Your task to perform on an android device: set default search engine in the chrome app Image 0: 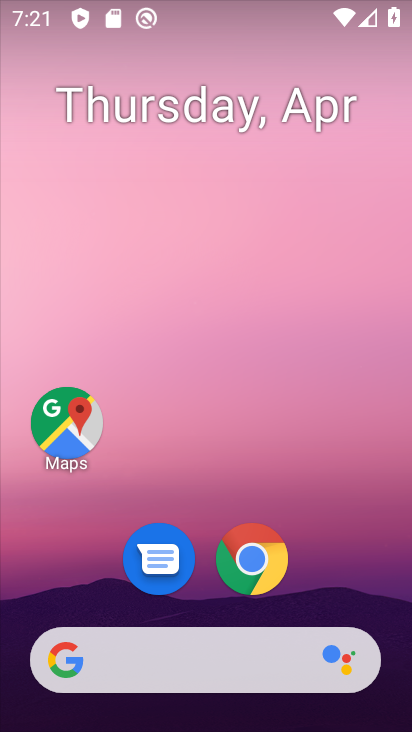
Step 0: click (259, 563)
Your task to perform on an android device: set default search engine in the chrome app Image 1: 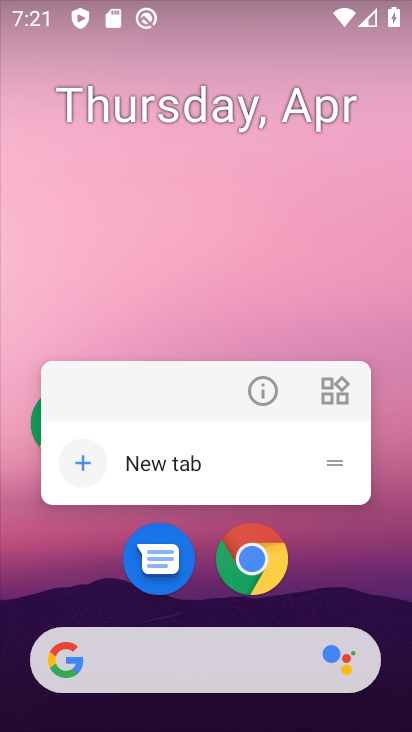
Step 1: click (259, 563)
Your task to perform on an android device: set default search engine in the chrome app Image 2: 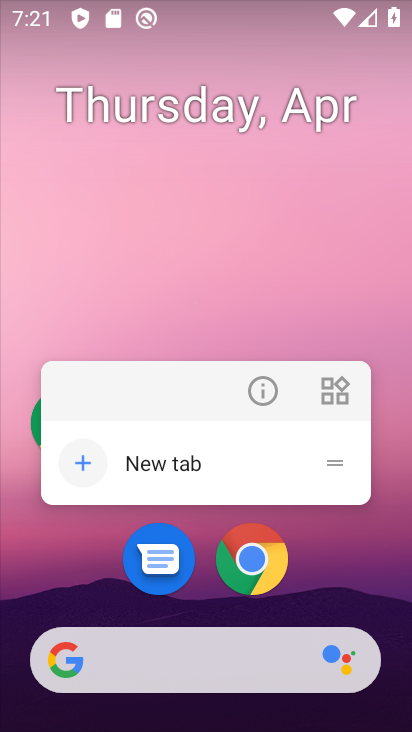
Step 2: click (259, 563)
Your task to perform on an android device: set default search engine in the chrome app Image 3: 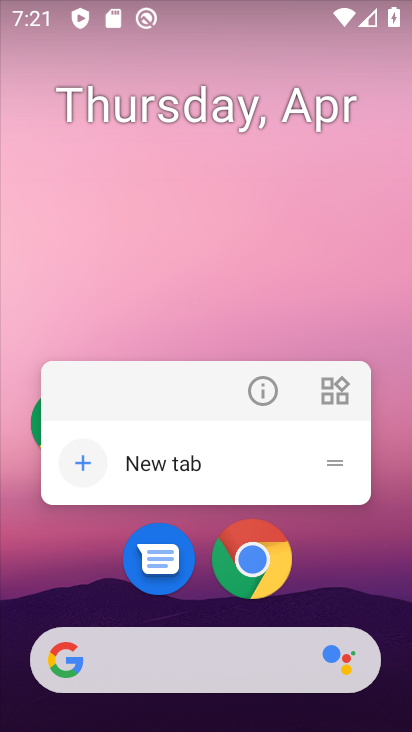
Step 3: click (259, 563)
Your task to perform on an android device: set default search engine in the chrome app Image 4: 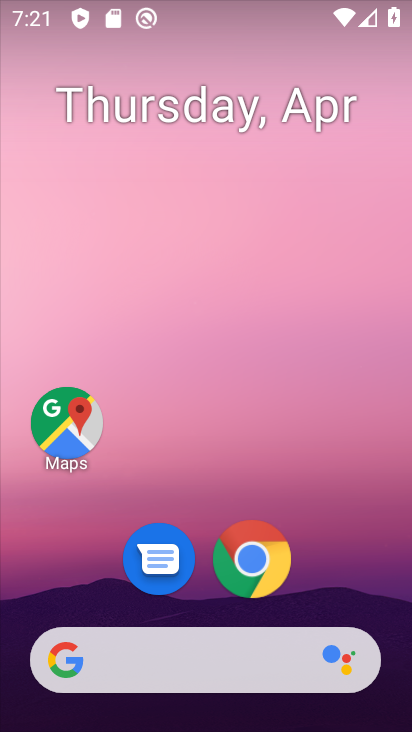
Step 4: click (259, 563)
Your task to perform on an android device: set default search engine in the chrome app Image 5: 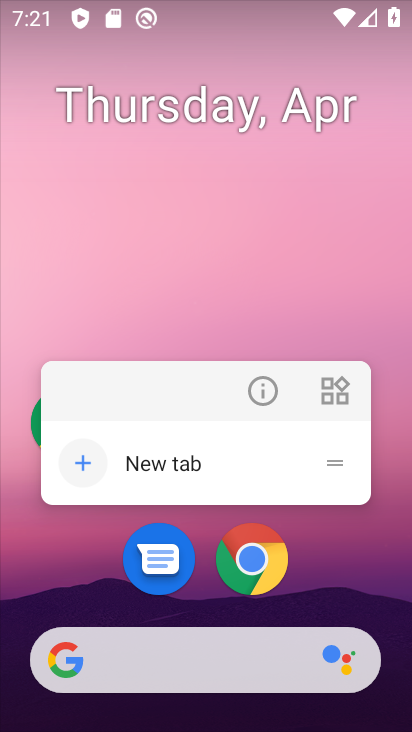
Step 5: click (259, 563)
Your task to perform on an android device: set default search engine in the chrome app Image 6: 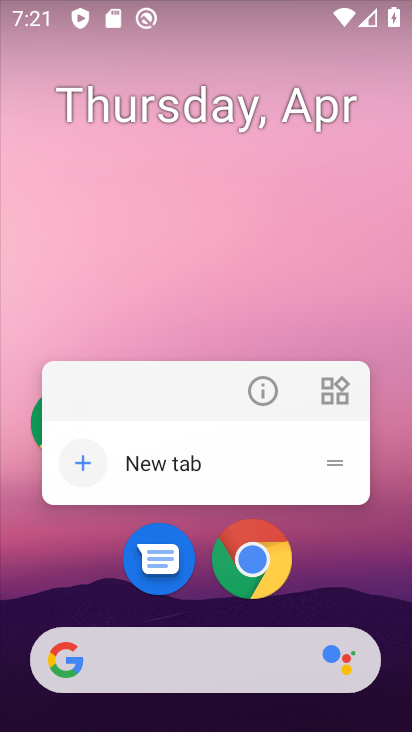
Step 6: click (259, 563)
Your task to perform on an android device: set default search engine in the chrome app Image 7: 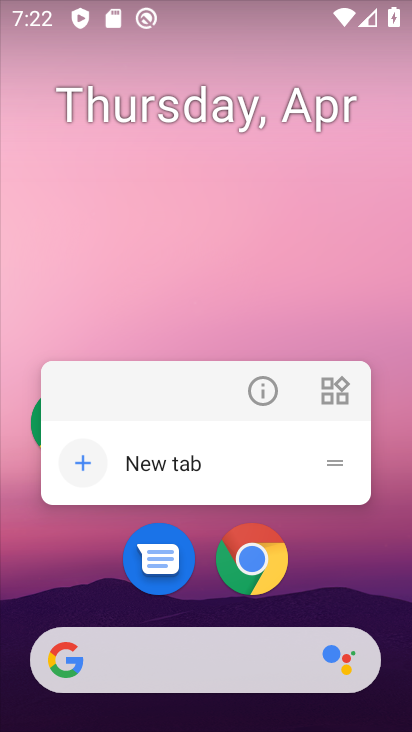
Step 7: click (262, 571)
Your task to perform on an android device: set default search engine in the chrome app Image 8: 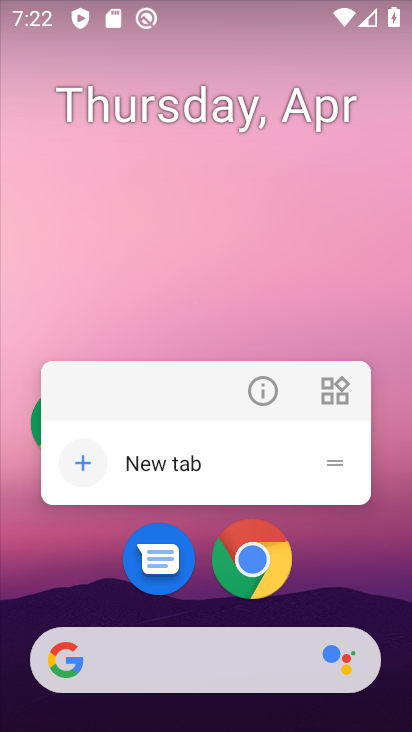
Step 8: click (262, 571)
Your task to perform on an android device: set default search engine in the chrome app Image 9: 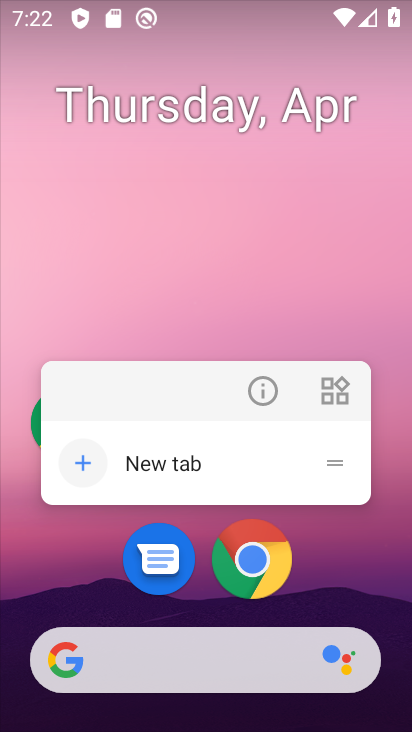
Step 9: click (262, 571)
Your task to perform on an android device: set default search engine in the chrome app Image 10: 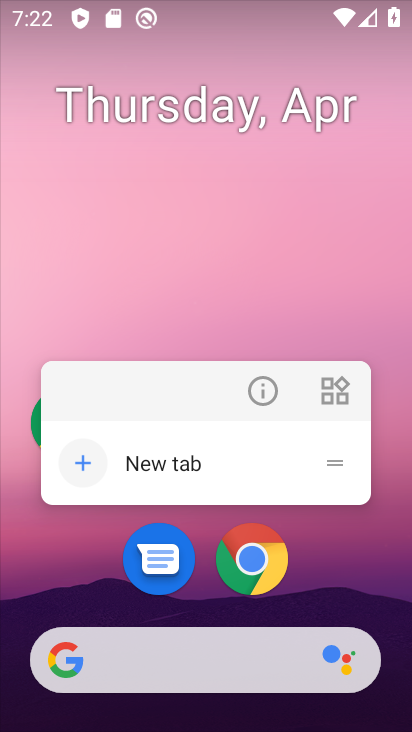
Step 10: click (262, 571)
Your task to perform on an android device: set default search engine in the chrome app Image 11: 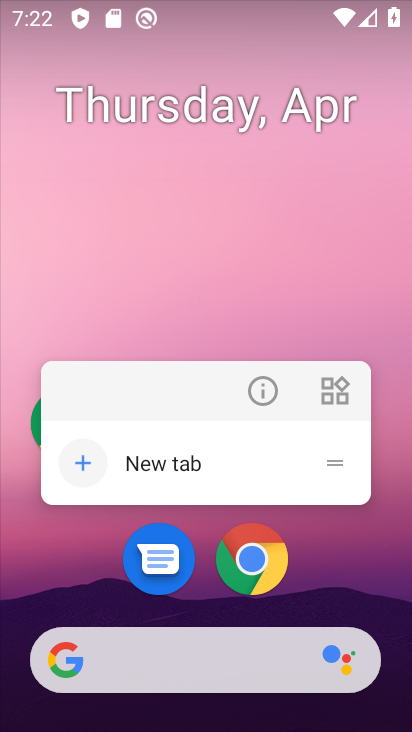
Step 11: click (262, 571)
Your task to perform on an android device: set default search engine in the chrome app Image 12: 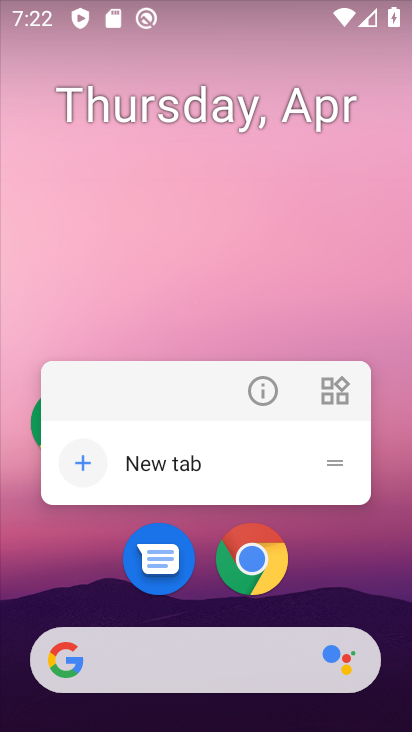
Step 12: click (262, 571)
Your task to perform on an android device: set default search engine in the chrome app Image 13: 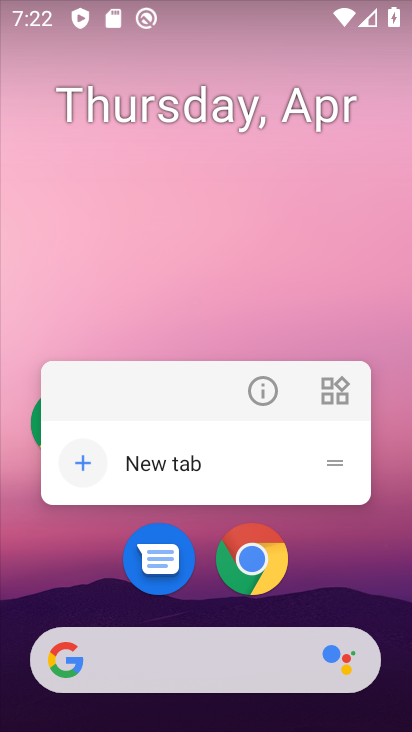
Step 13: click (262, 571)
Your task to perform on an android device: set default search engine in the chrome app Image 14: 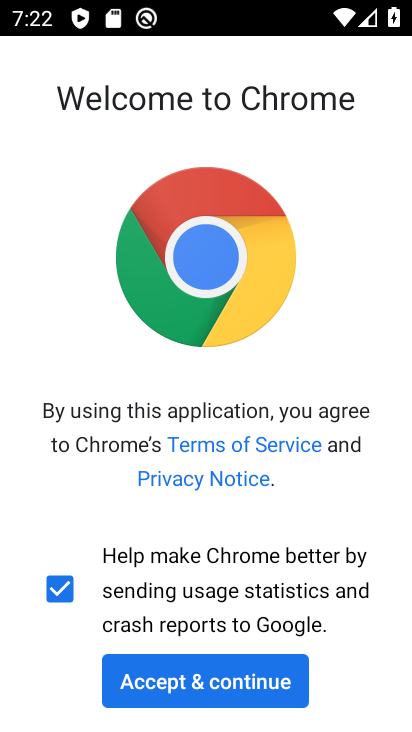
Step 14: click (223, 681)
Your task to perform on an android device: set default search engine in the chrome app Image 15: 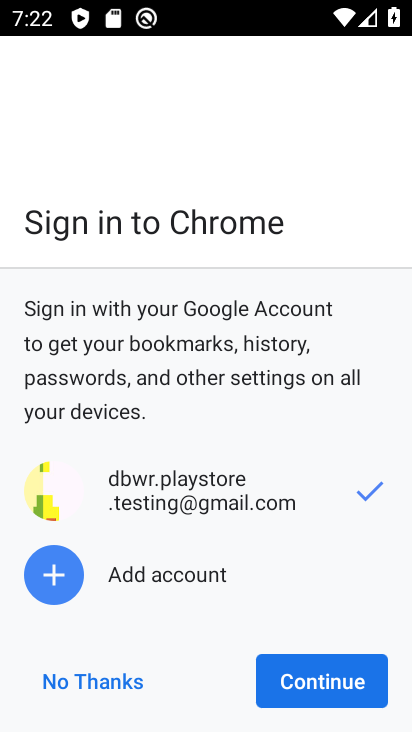
Step 15: click (373, 678)
Your task to perform on an android device: set default search engine in the chrome app Image 16: 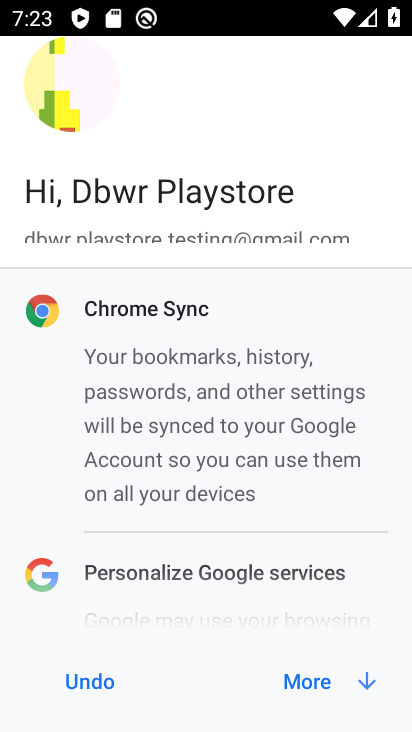
Step 16: click (302, 688)
Your task to perform on an android device: set default search engine in the chrome app Image 17: 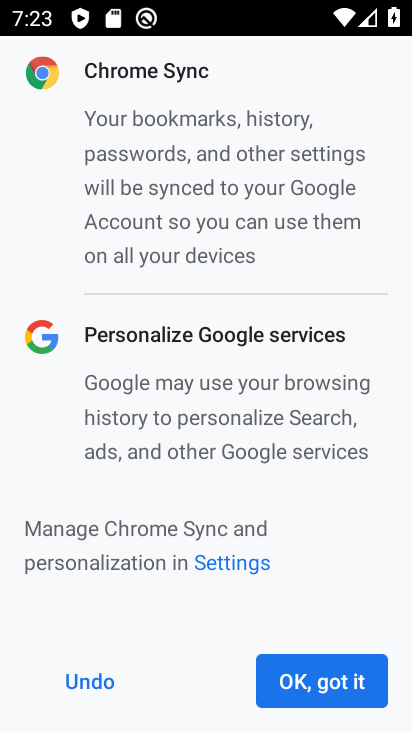
Step 17: click (301, 669)
Your task to perform on an android device: set default search engine in the chrome app Image 18: 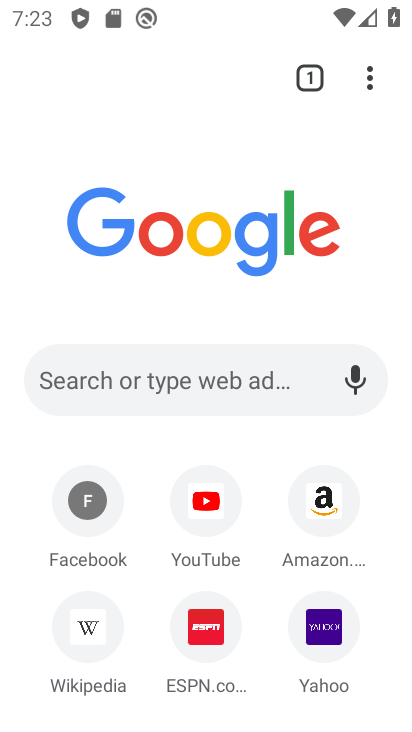
Step 18: click (373, 77)
Your task to perform on an android device: set default search engine in the chrome app Image 19: 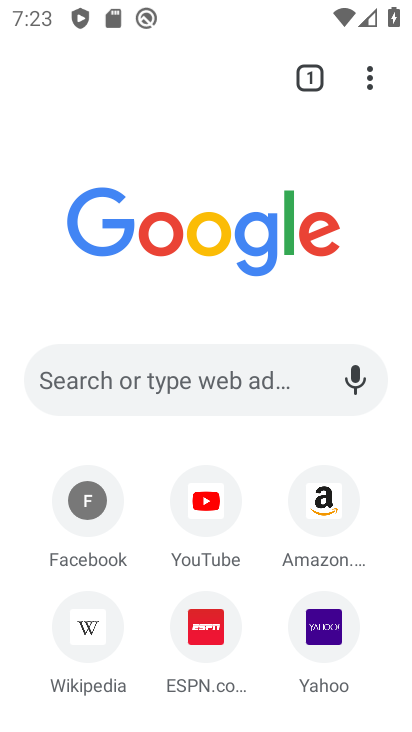
Step 19: click (373, 77)
Your task to perform on an android device: set default search engine in the chrome app Image 20: 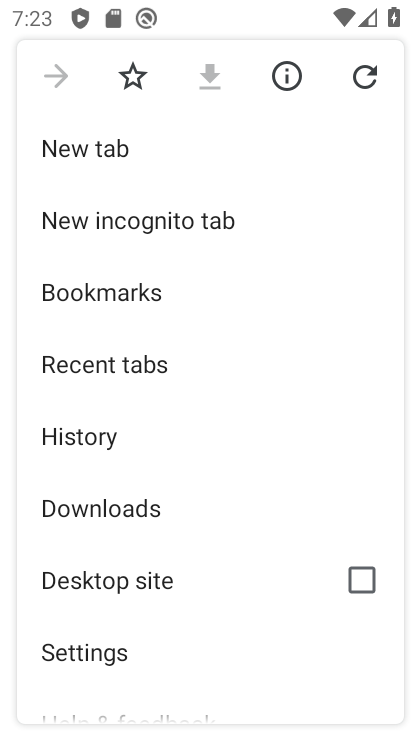
Step 20: click (120, 647)
Your task to perform on an android device: set default search engine in the chrome app Image 21: 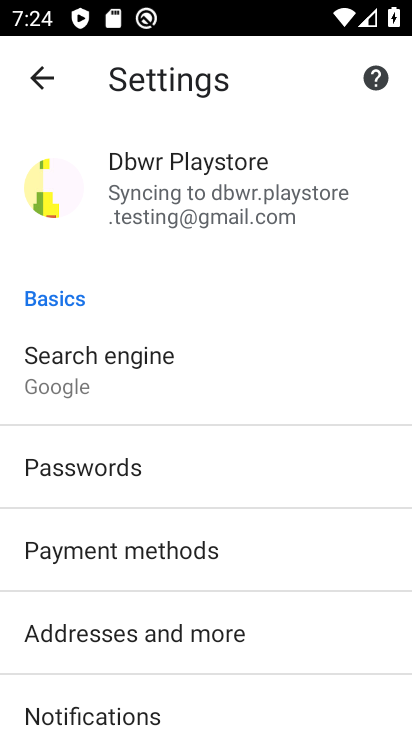
Step 21: click (126, 363)
Your task to perform on an android device: set default search engine in the chrome app Image 22: 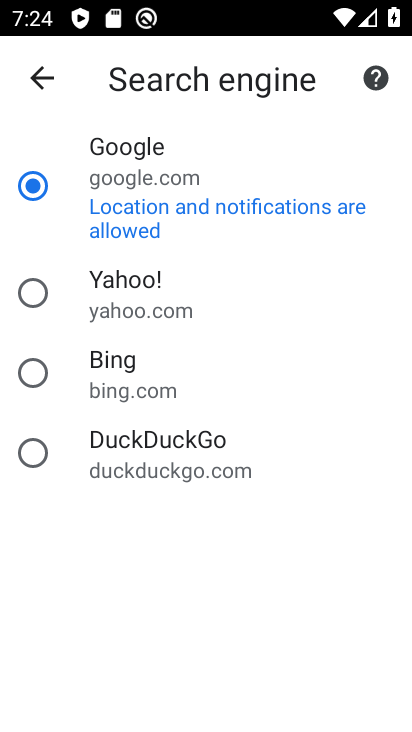
Step 22: click (143, 290)
Your task to perform on an android device: set default search engine in the chrome app Image 23: 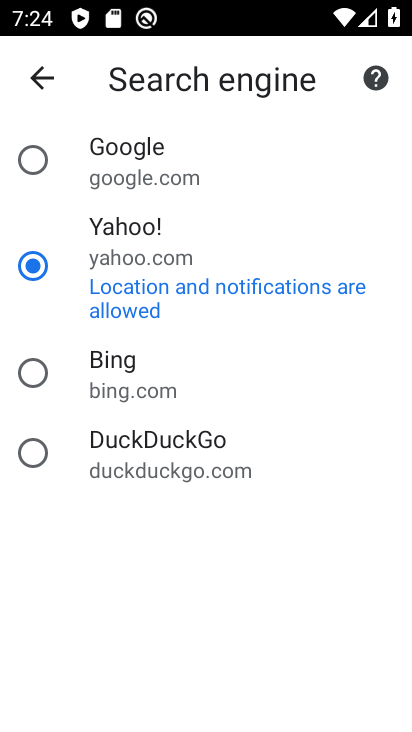
Step 23: task complete